Your task to perform on an android device: Go to Google maps Image 0: 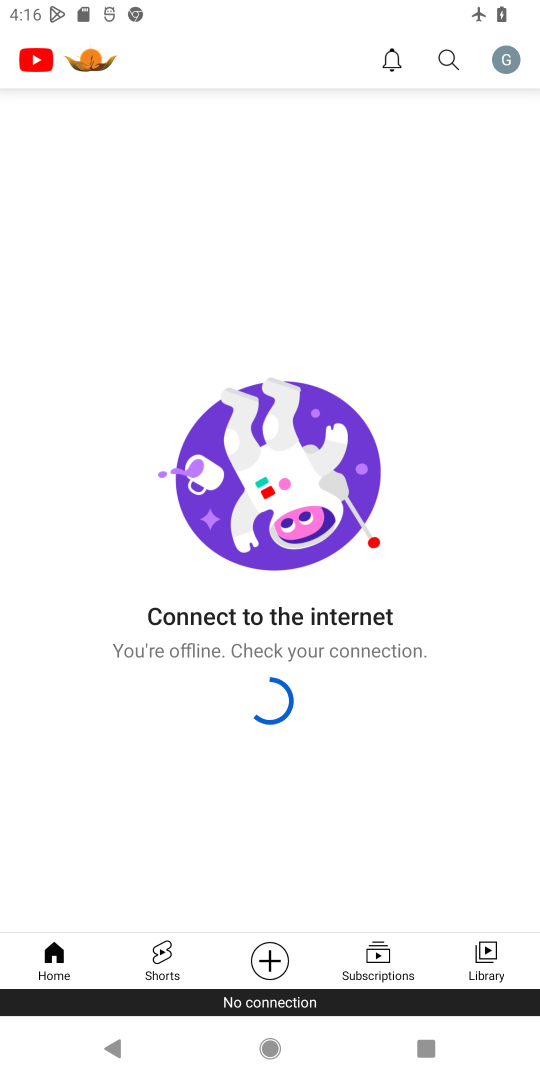
Step 0: press home button
Your task to perform on an android device: Go to Google maps Image 1: 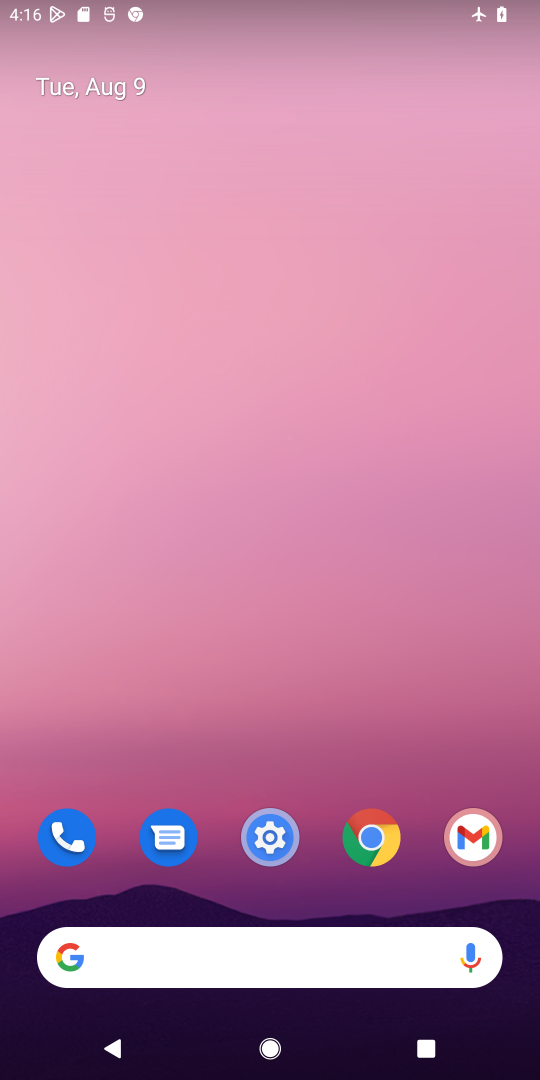
Step 1: drag from (260, 939) to (277, 381)
Your task to perform on an android device: Go to Google maps Image 2: 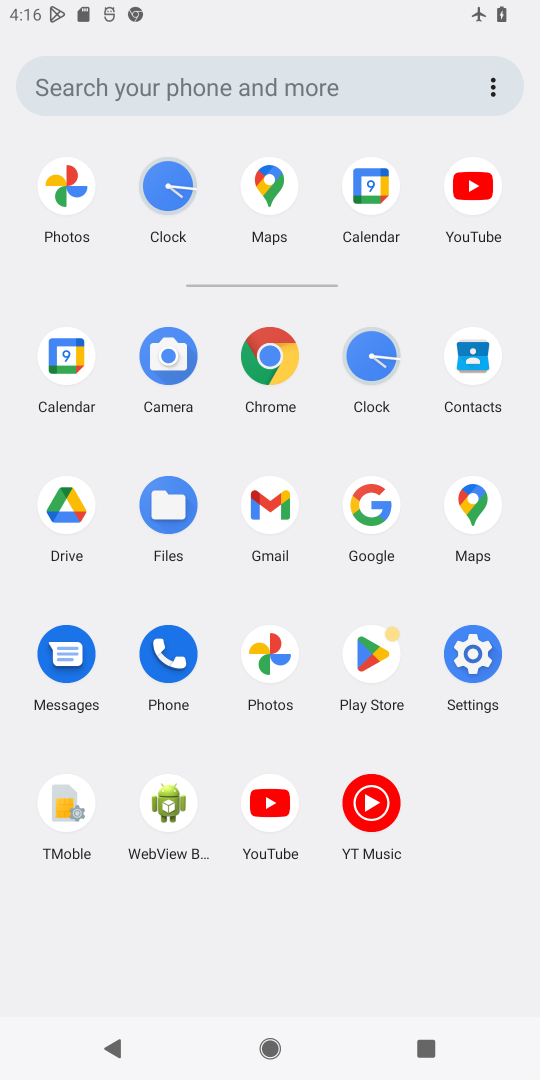
Step 2: click (478, 492)
Your task to perform on an android device: Go to Google maps Image 3: 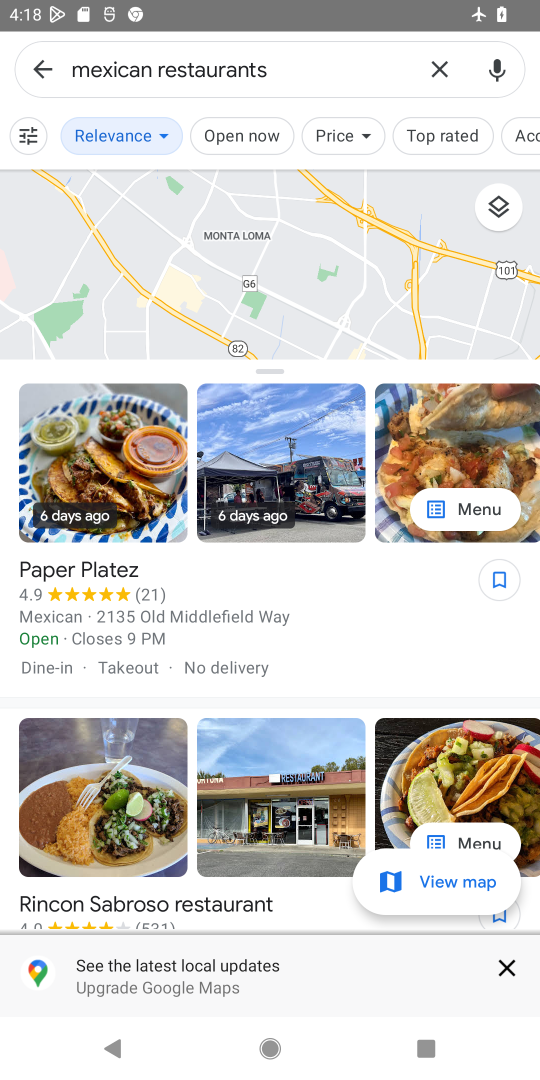
Step 3: task complete